Your task to perform on an android device: Open Google Chrome and open the bookmarks view Image 0: 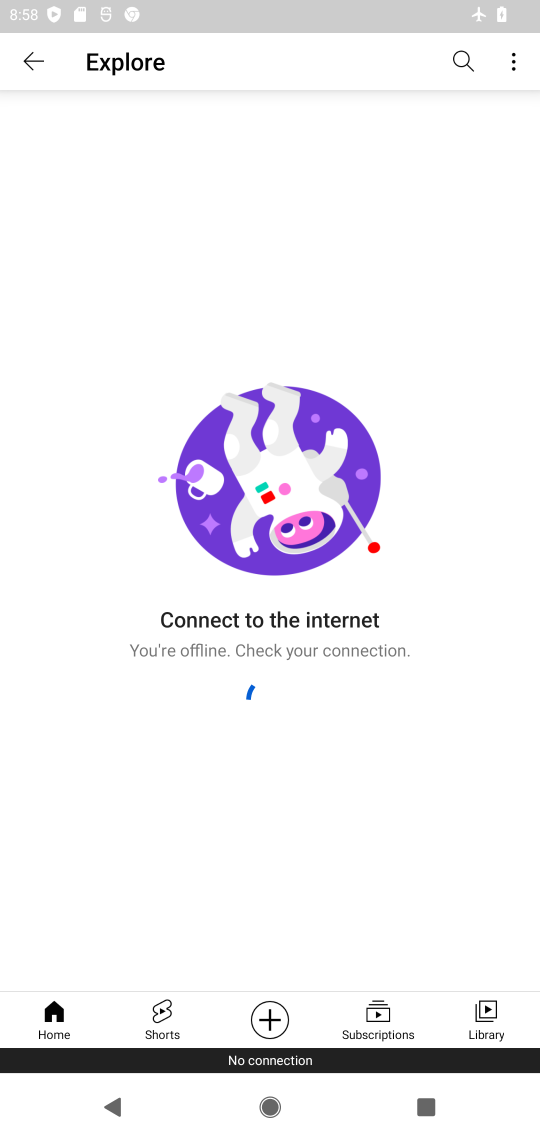
Step 0: press home button
Your task to perform on an android device: Open Google Chrome and open the bookmarks view Image 1: 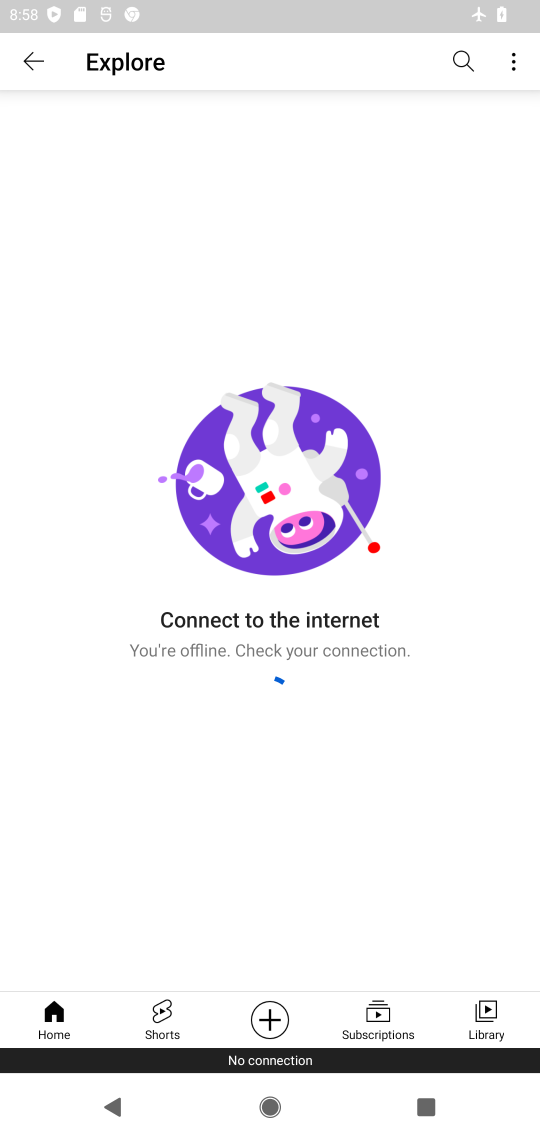
Step 1: press home button
Your task to perform on an android device: Open Google Chrome and open the bookmarks view Image 2: 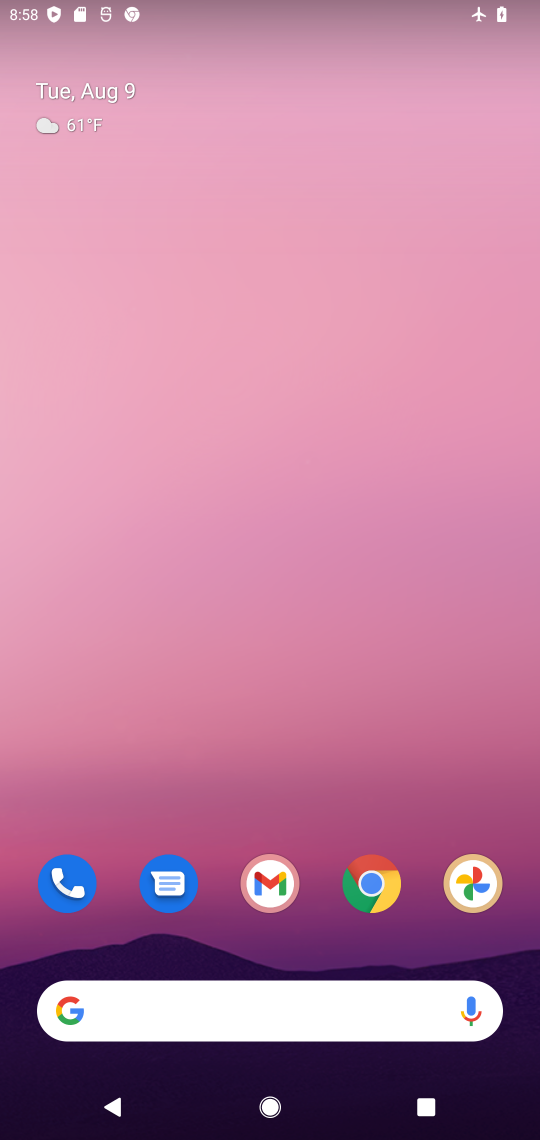
Step 2: drag from (351, 820) to (216, 220)
Your task to perform on an android device: Open Google Chrome and open the bookmarks view Image 3: 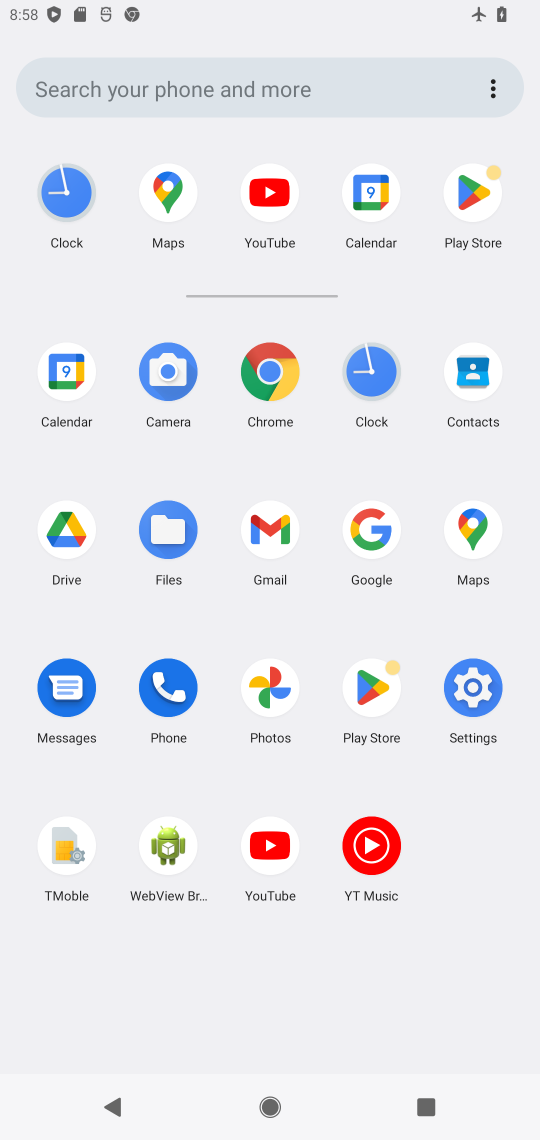
Step 3: click (273, 371)
Your task to perform on an android device: Open Google Chrome and open the bookmarks view Image 4: 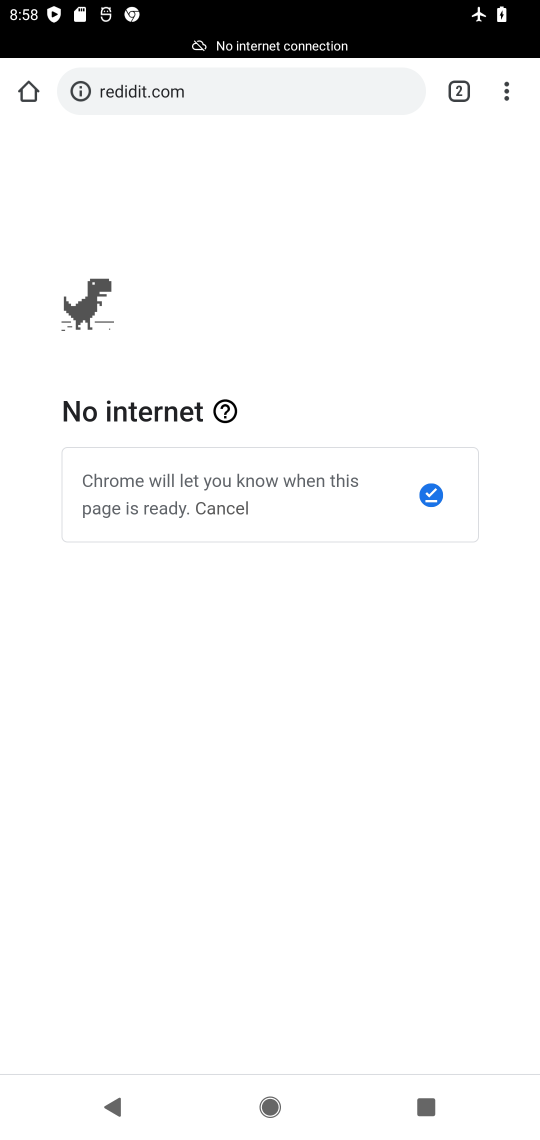
Step 4: task complete